Your task to perform on an android device: Do I have any events this weekend? Image 0: 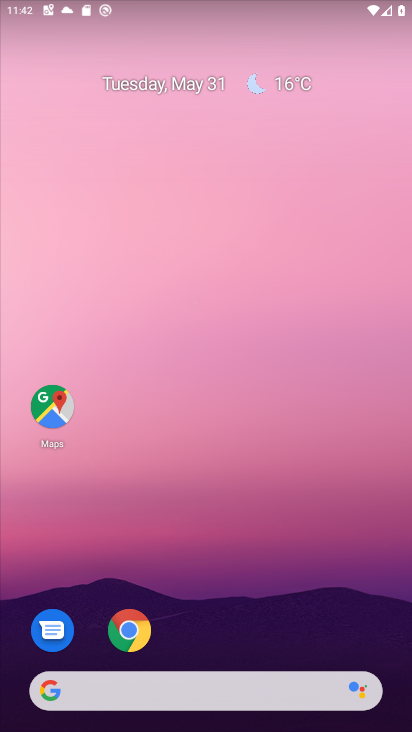
Step 0: drag from (271, 520) to (260, 62)
Your task to perform on an android device: Do I have any events this weekend? Image 1: 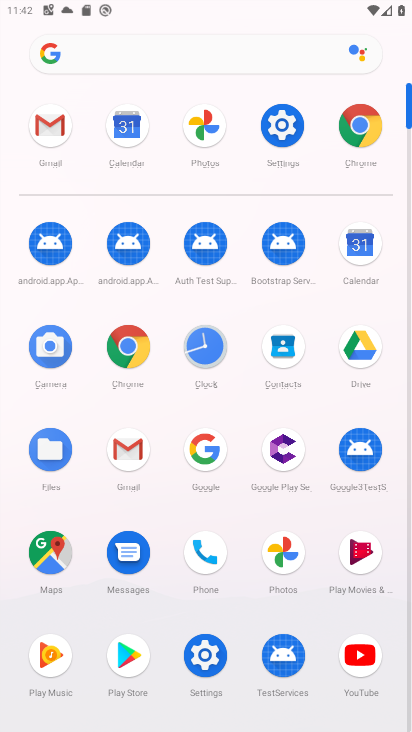
Step 1: click (127, 131)
Your task to perform on an android device: Do I have any events this weekend? Image 2: 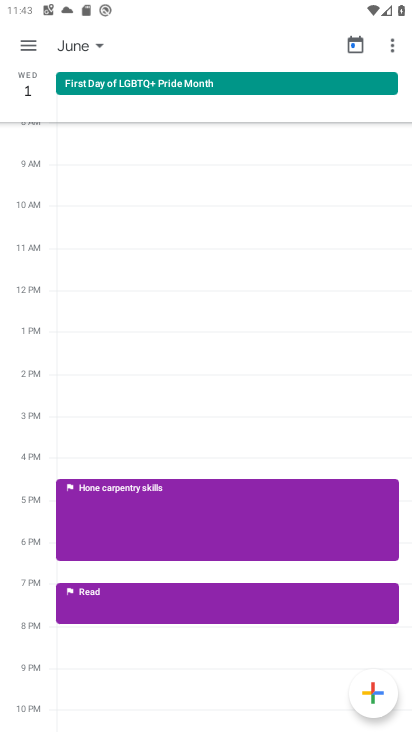
Step 2: click (33, 45)
Your task to perform on an android device: Do I have any events this weekend? Image 3: 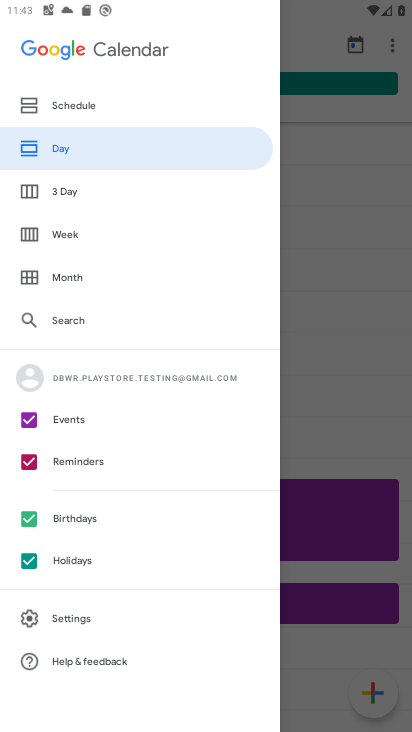
Step 3: click (75, 206)
Your task to perform on an android device: Do I have any events this weekend? Image 4: 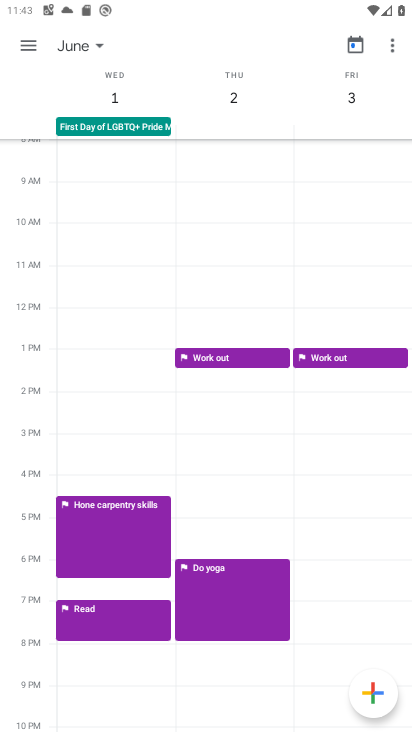
Step 4: task complete